Your task to perform on an android device: toggle show notifications on the lock screen Image 0: 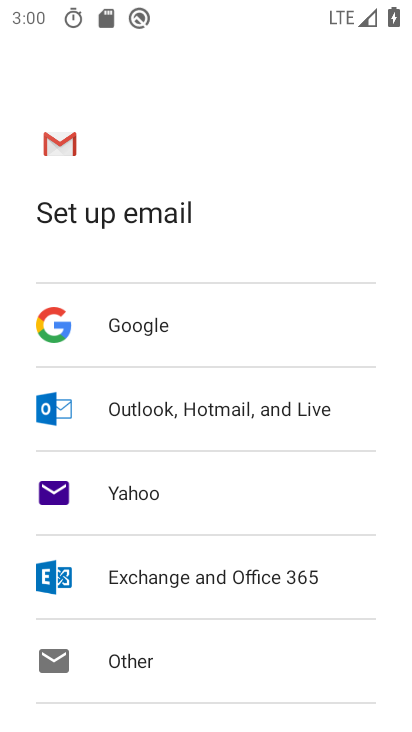
Step 0: press home button
Your task to perform on an android device: toggle show notifications on the lock screen Image 1: 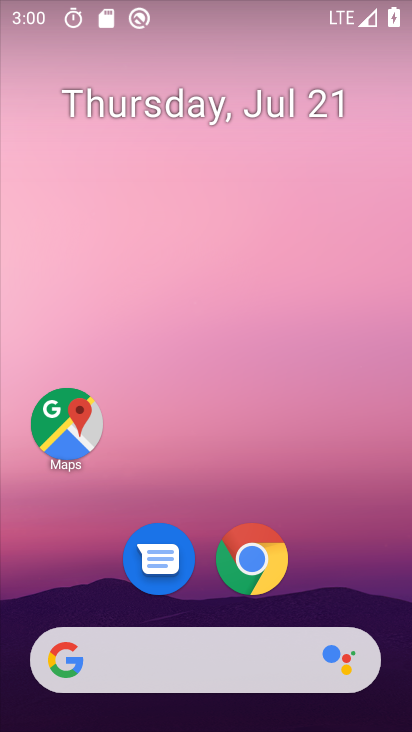
Step 1: drag from (338, 516) to (341, 129)
Your task to perform on an android device: toggle show notifications on the lock screen Image 2: 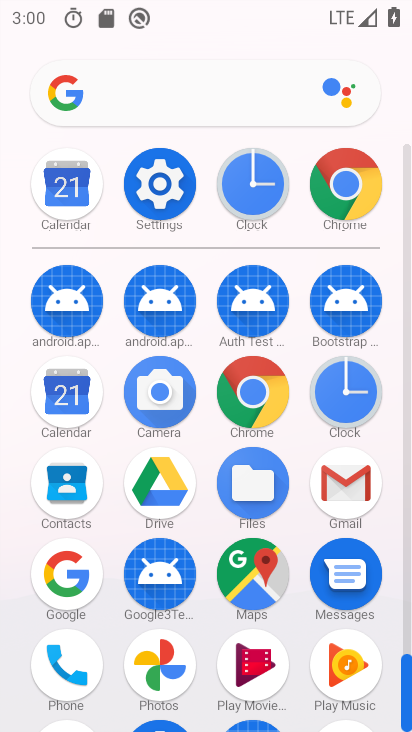
Step 2: click (165, 184)
Your task to perform on an android device: toggle show notifications on the lock screen Image 3: 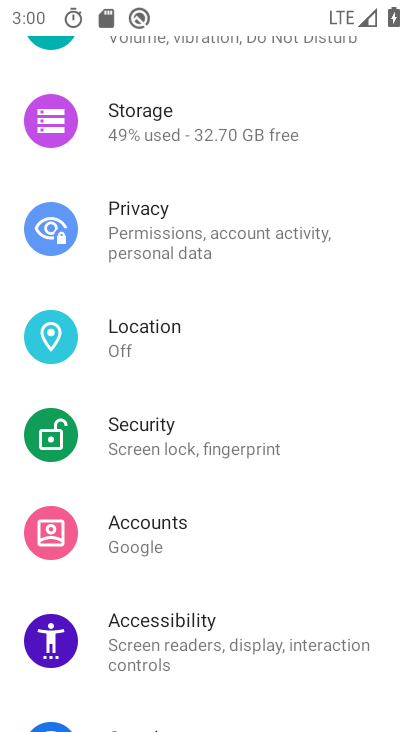
Step 3: drag from (351, 271) to (352, 416)
Your task to perform on an android device: toggle show notifications on the lock screen Image 4: 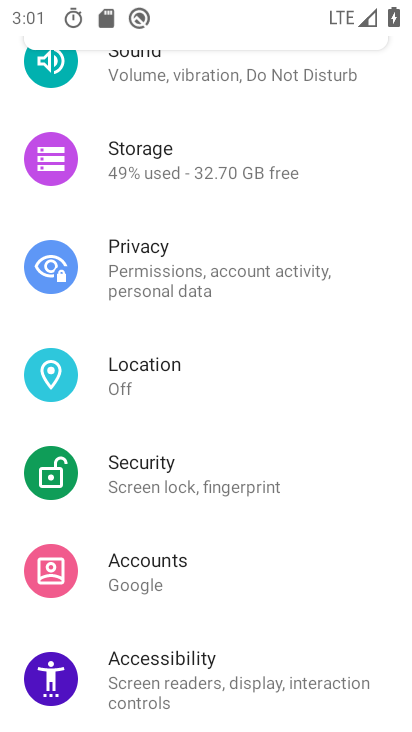
Step 4: drag from (378, 235) to (375, 348)
Your task to perform on an android device: toggle show notifications on the lock screen Image 5: 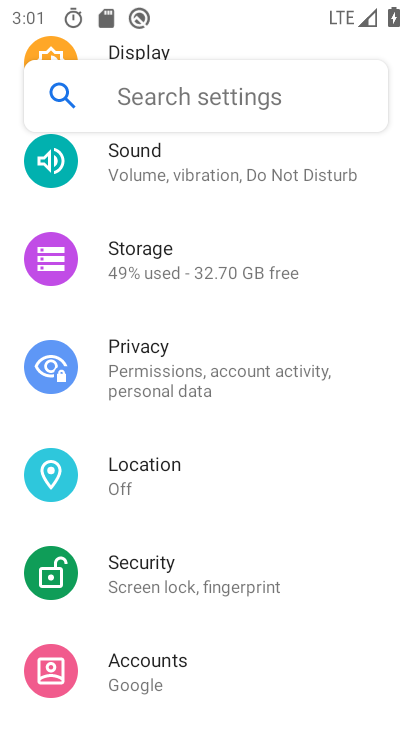
Step 5: drag from (362, 248) to (345, 385)
Your task to perform on an android device: toggle show notifications on the lock screen Image 6: 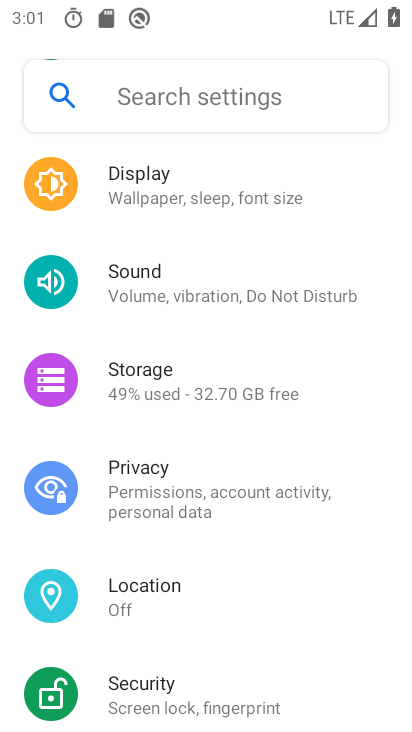
Step 6: drag from (352, 210) to (354, 408)
Your task to perform on an android device: toggle show notifications on the lock screen Image 7: 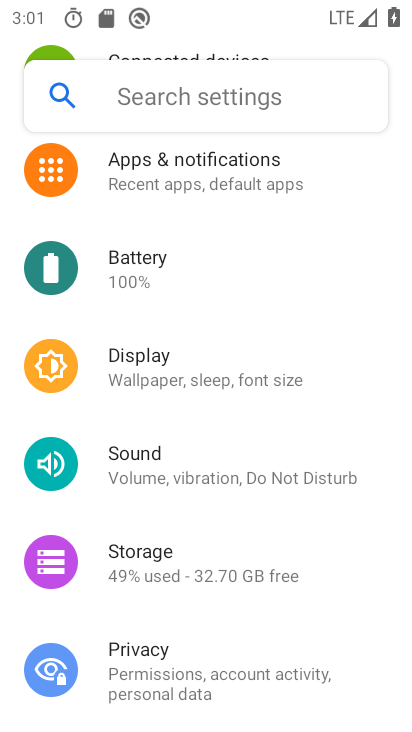
Step 7: drag from (356, 232) to (348, 364)
Your task to perform on an android device: toggle show notifications on the lock screen Image 8: 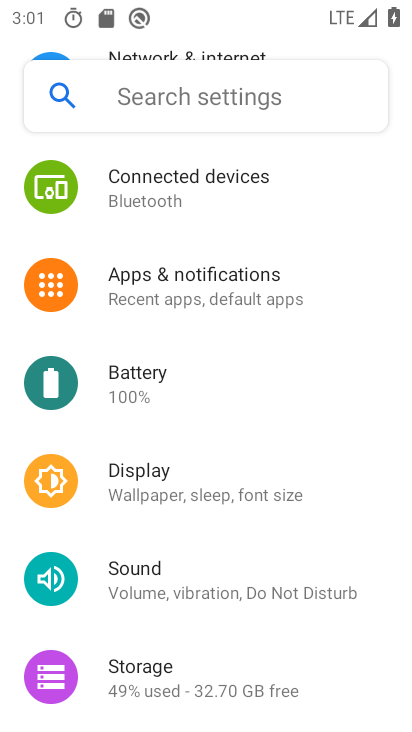
Step 8: drag from (348, 213) to (345, 367)
Your task to perform on an android device: toggle show notifications on the lock screen Image 9: 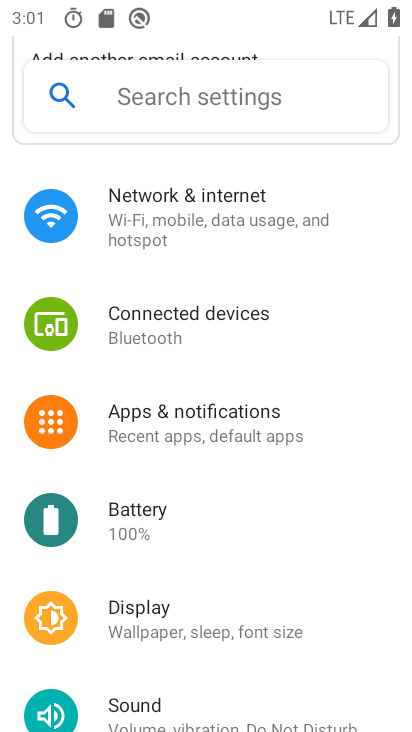
Step 9: drag from (361, 222) to (354, 357)
Your task to perform on an android device: toggle show notifications on the lock screen Image 10: 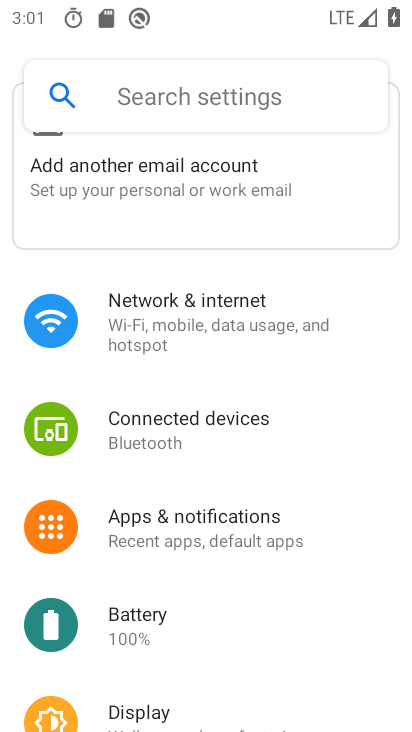
Step 10: drag from (319, 493) to (335, 406)
Your task to perform on an android device: toggle show notifications on the lock screen Image 11: 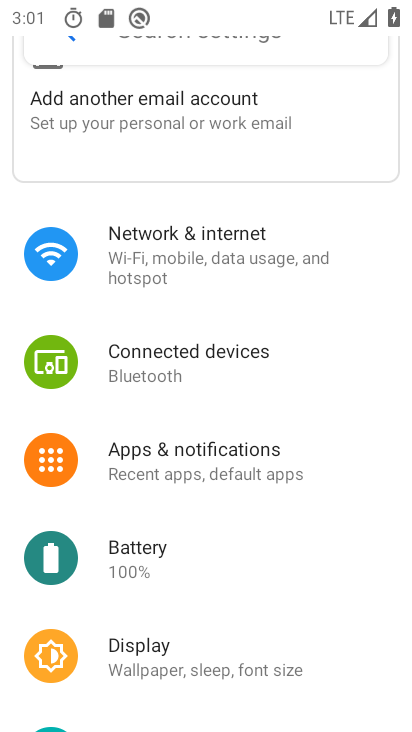
Step 11: drag from (335, 516) to (358, 420)
Your task to perform on an android device: toggle show notifications on the lock screen Image 12: 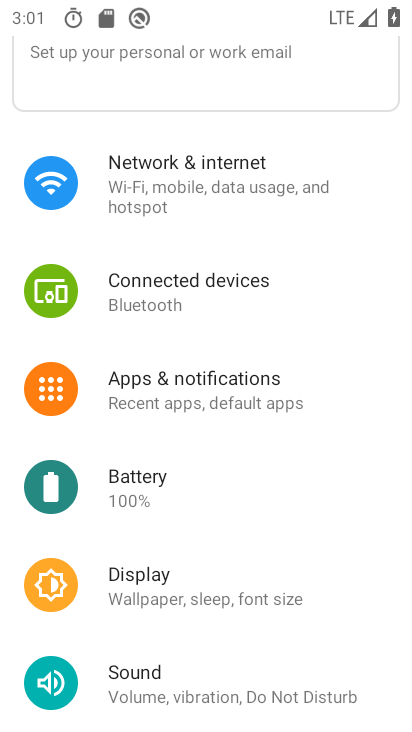
Step 12: drag from (352, 509) to (360, 424)
Your task to perform on an android device: toggle show notifications on the lock screen Image 13: 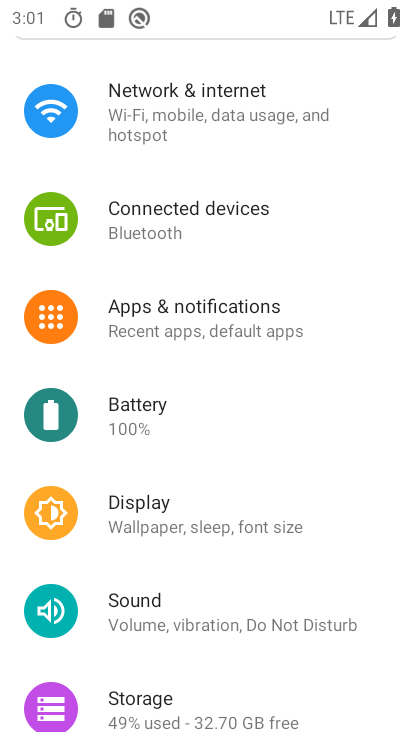
Step 13: click (294, 328)
Your task to perform on an android device: toggle show notifications on the lock screen Image 14: 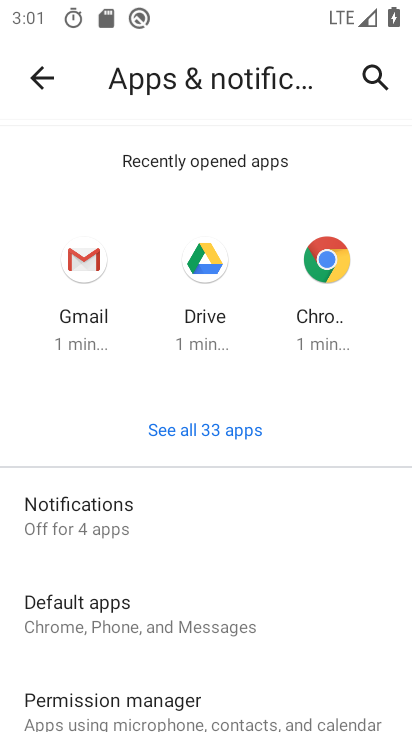
Step 14: drag from (318, 519) to (321, 407)
Your task to perform on an android device: toggle show notifications on the lock screen Image 15: 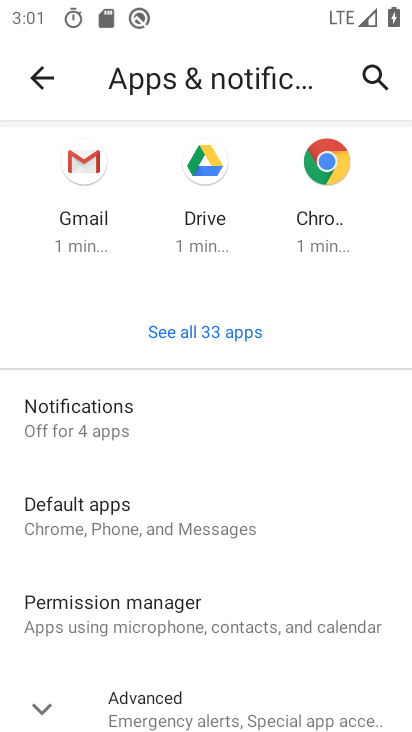
Step 15: drag from (334, 488) to (342, 377)
Your task to perform on an android device: toggle show notifications on the lock screen Image 16: 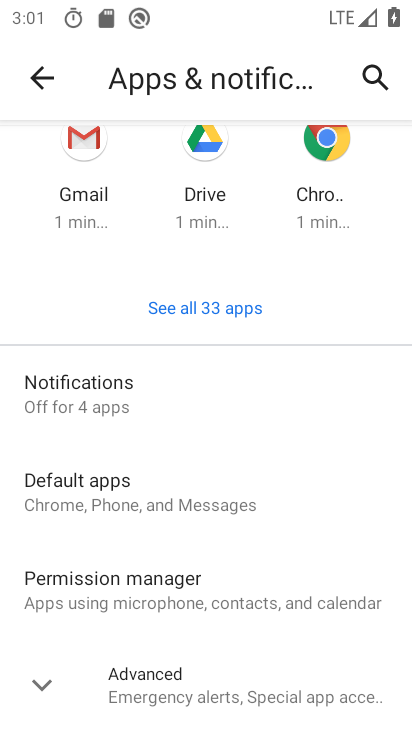
Step 16: click (163, 407)
Your task to perform on an android device: toggle show notifications on the lock screen Image 17: 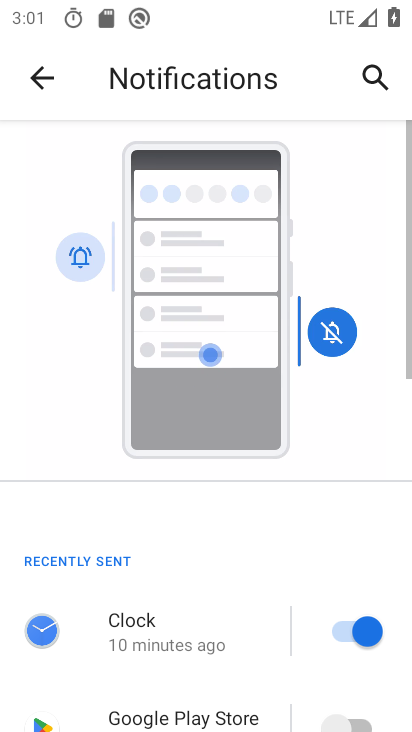
Step 17: drag from (321, 525) to (331, 426)
Your task to perform on an android device: toggle show notifications on the lock screen Image 18: 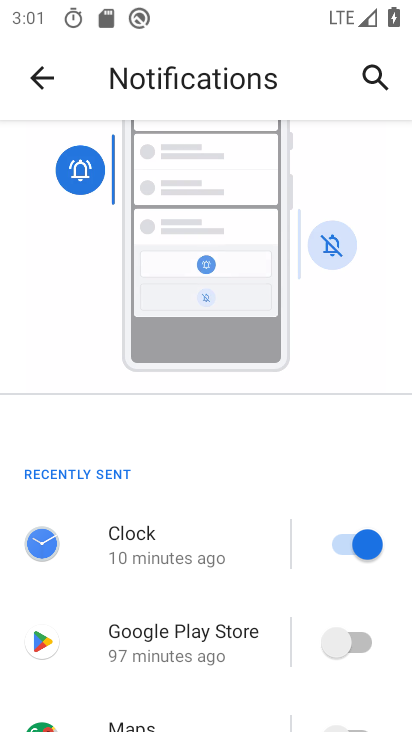
Step 18: drag from (271, 564) to (266, 453)
Your task to perform on an android device: toggle show notifications on the lock screen Image 19: 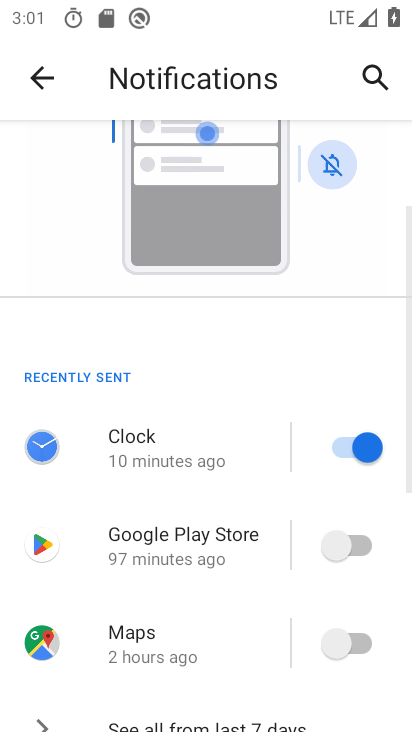
Step 19: drag from (237, 602) to (244, 490)
Your task to perform on an android device: toggle show notifications on the lock screen Image 20: 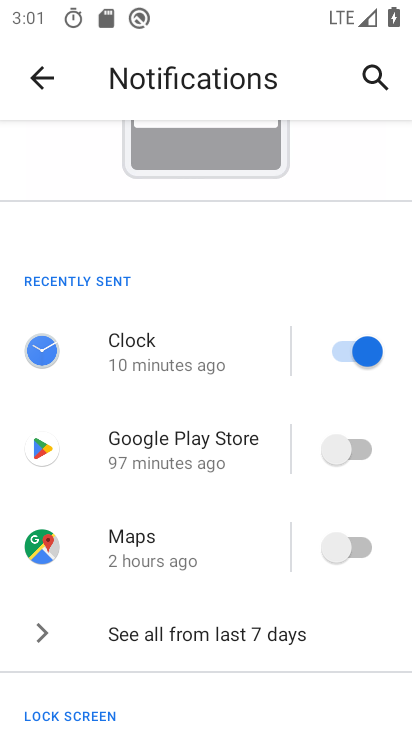
Step 20: drag from (243, 579) to (250, 467)
Your task to perform on an android device: toggle show notifications on the lock screen Image 21: 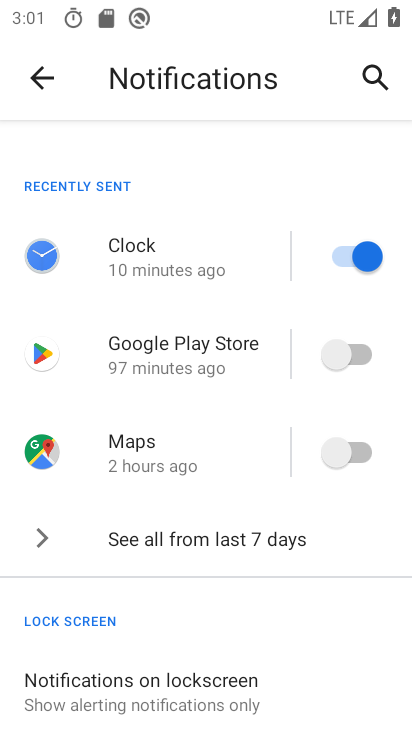
Step 21: drag from (250, 585) to (249, 452)
Your task to perform on an android device: toggle show notifications on the lock screen Image 22: 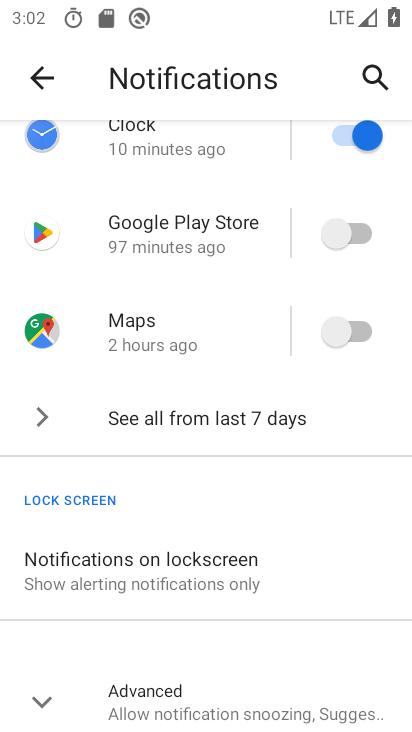
Step 22: click (249, 574)
Your task to perform on an android device: toggle show notifications on the lock screen Image 23: 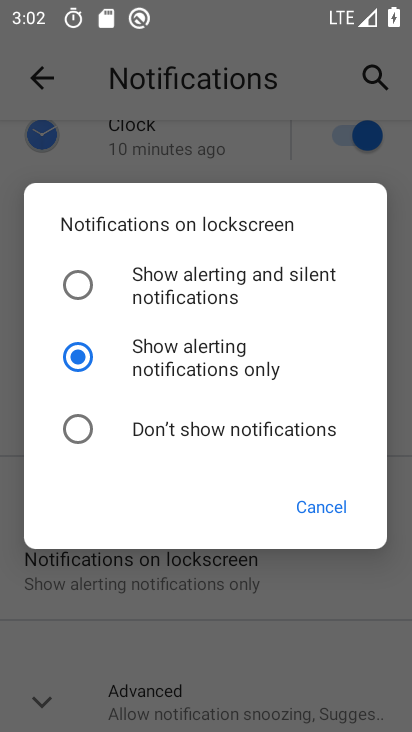
Step 23: click (92, 286)
Your task to perform on an android device: toggle show notifications on the lock screen Image 24: 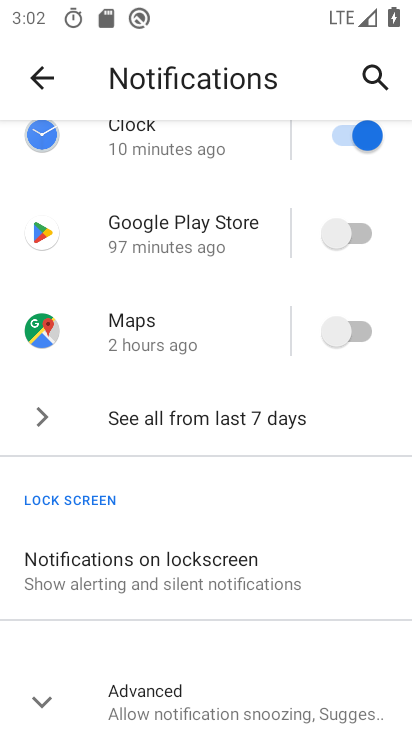
Step 24: task complete